Your task to perform on an android device: make emails show in primary in the gmail app Image 0: 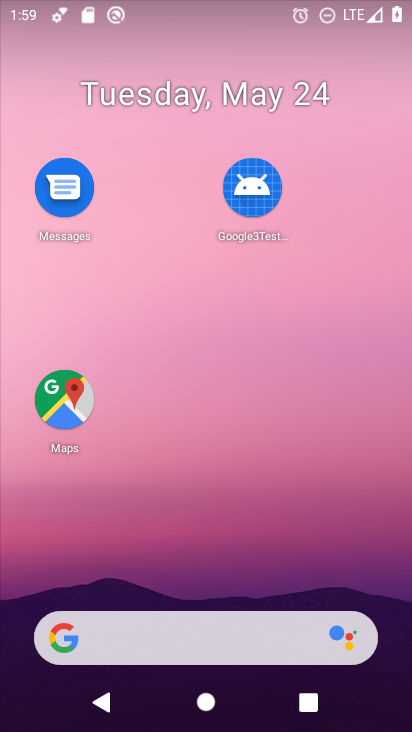
Step 0: drag from (185, 162) to (200, 46)
Your task to perform on an android device: make emails show in primary in the gmail app Image 1: 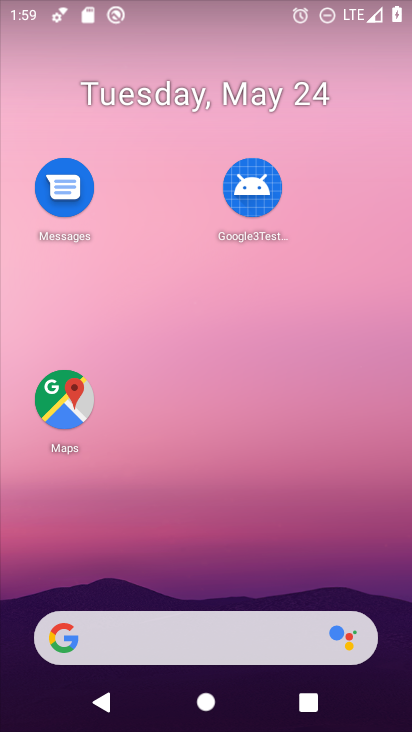
Step 1: drag from (199, 541) to (185, 74)
Your task to perform on an android device: make emails show in primary in the gmail app Image 2: 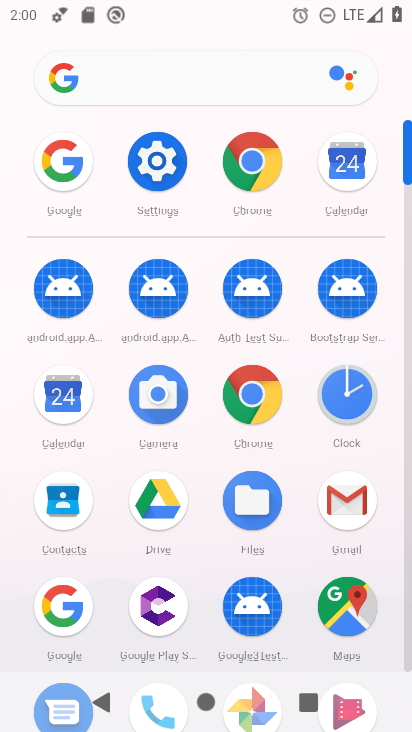
Step 2: click (342, 502)
Your task to perform on an android device: make emails show in primary in the gmail app Image 3: 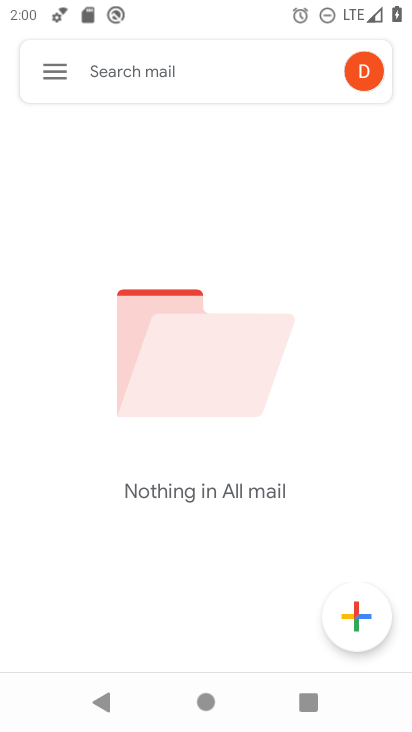
Step 3: click (56, 78)
Your task to perform on an android device: make emails show in primary in the gmail app Image 4: 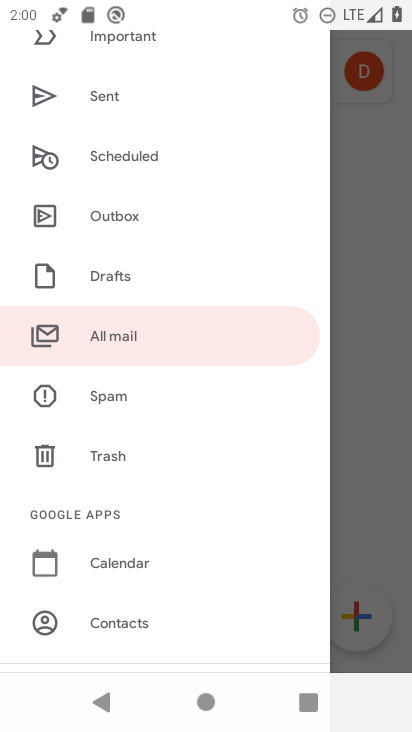
Step 4: drag from (130, 587) to (103, 412)
Your task to perform on an android device: make emails show in primary in the gmail app Image 5: 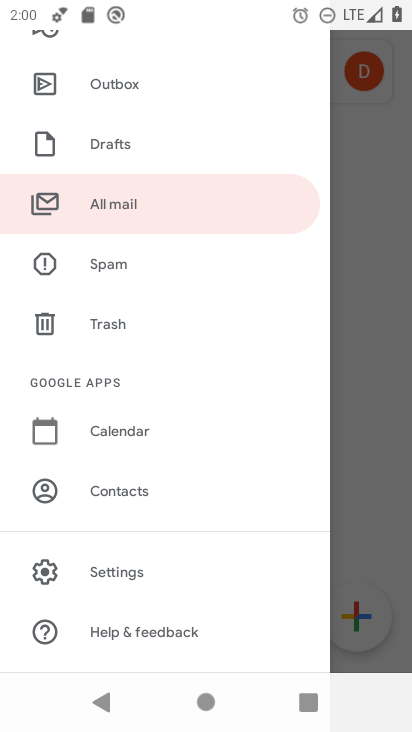
Step 5: click (108, 576)
Your task to perform on an android device: make emails show in primary in the gmail app Image 6: 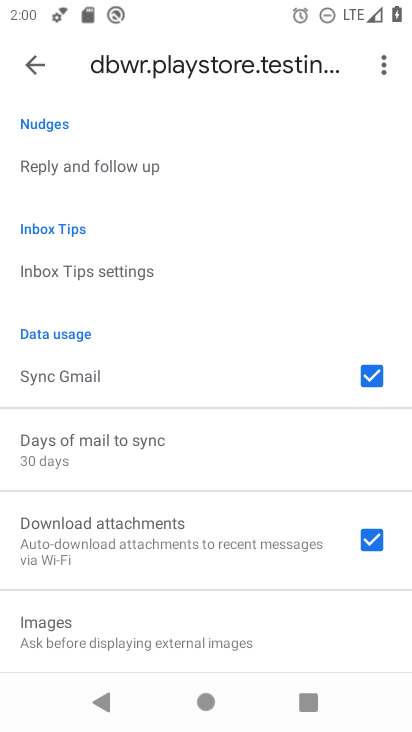
Step 6: drag from (147, 226) to (145, 605)
Your task to perform on an android device: make emails show in primary in the gmail app Image 7: 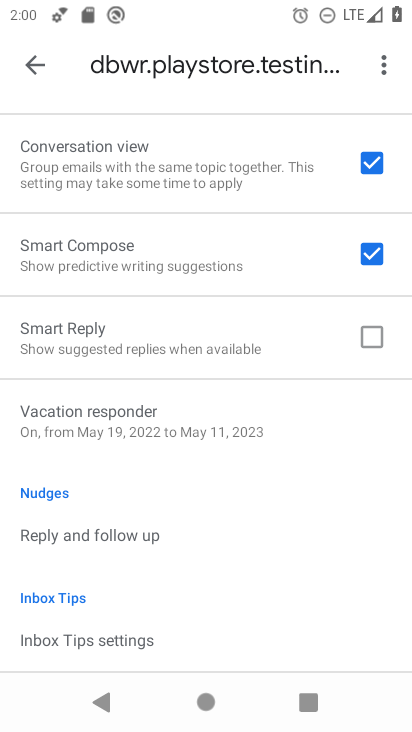
Step 7: drag from (225, 256) to (225, 703)
Your task to perform on an android device: make emails show in primary in the gmail app Image 8: 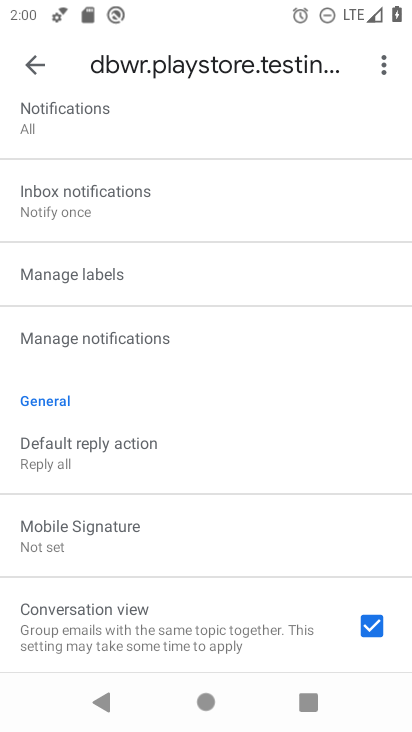
Step 8: drag from (267, 224) to (216, 705)
Your task to perform on an android device: make emails show in primary in the gmail app Image 9: 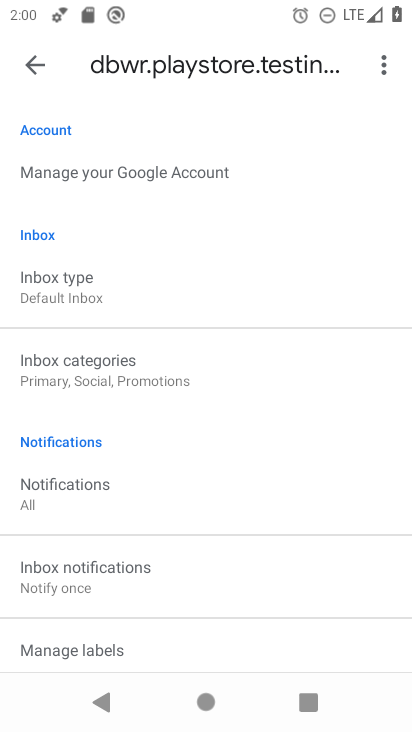
Step 9: click (61, 377)
Your task to perform on an android device: make emails show in primary in the gmail app Image 10: 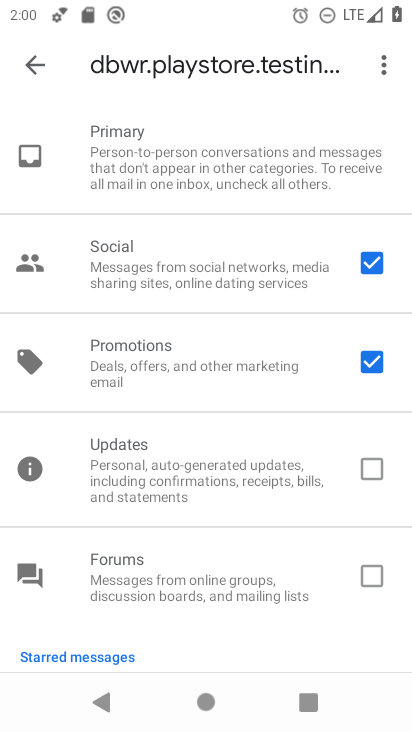
Step 10: click (376, 362)
Your task to perform on an android device: make emails show in primary in the gmail app Image 11: 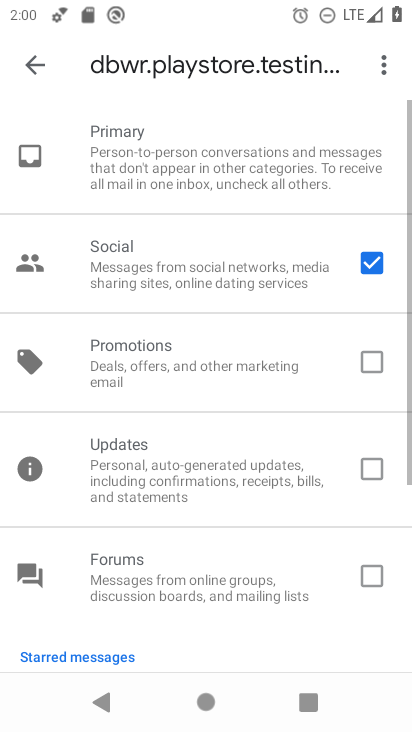
Step 11: click (371, 263)
Your task to perform on an android device: make emails show in primary in the gmail app Image 12: 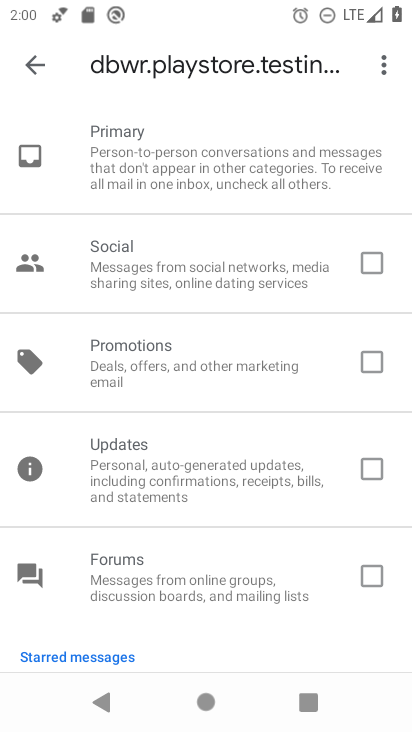
Step 12: task complete